Your task to perform on an android device: change the clock display to analog Image 0: 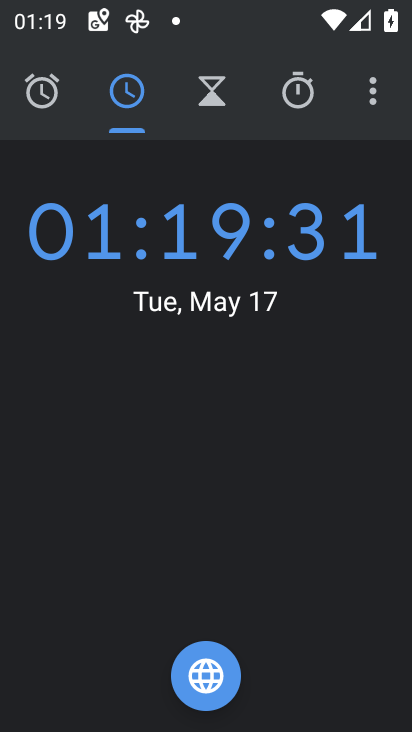
Step 0: press home button
Your task to perform on an android device: change the clock display to analog Image 1: 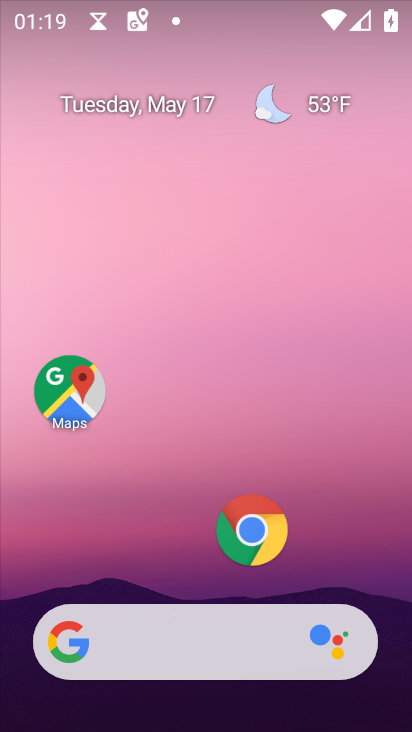
Step 1: drag from (160, 560) to (164, 2)
Your task to perform on an android device: change the clock display to analog Image 2: 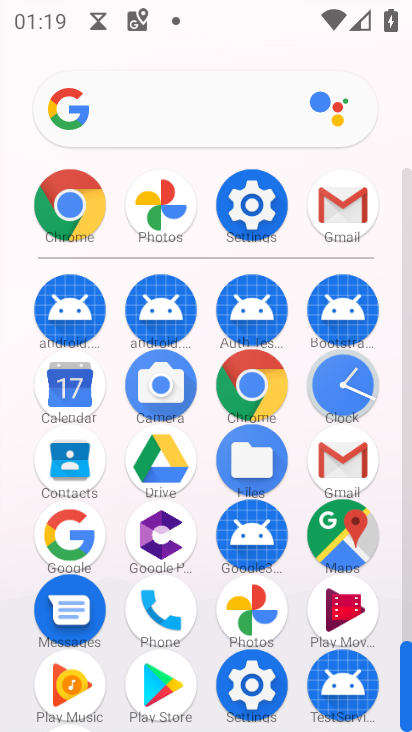
Step 2: click (337, 378)
Your task to perform on an android device: change the clock display to analog Image 3: 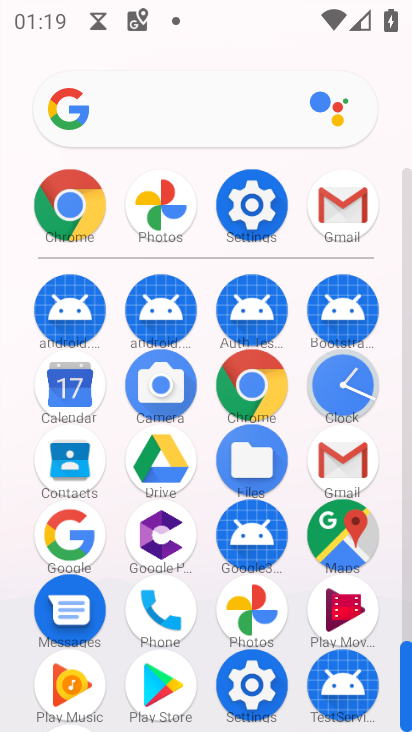
Step 3: click (337, 378)
Your task to perform on an android device: change the clock display to analog Image 4: 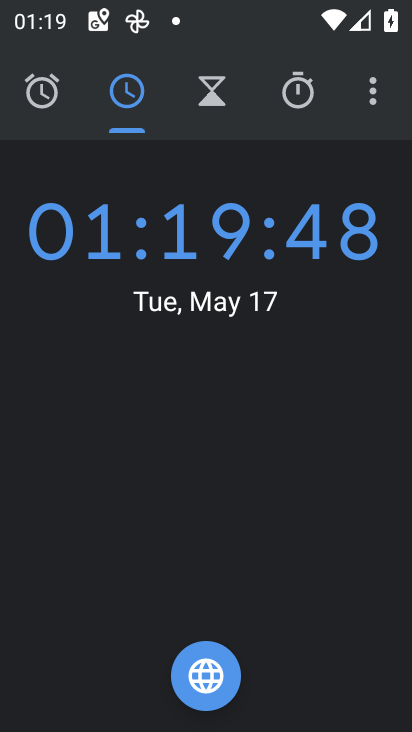
Step 4: click (365, 117)
Your task to perform on an android device: change the clock display to analog Image 5: 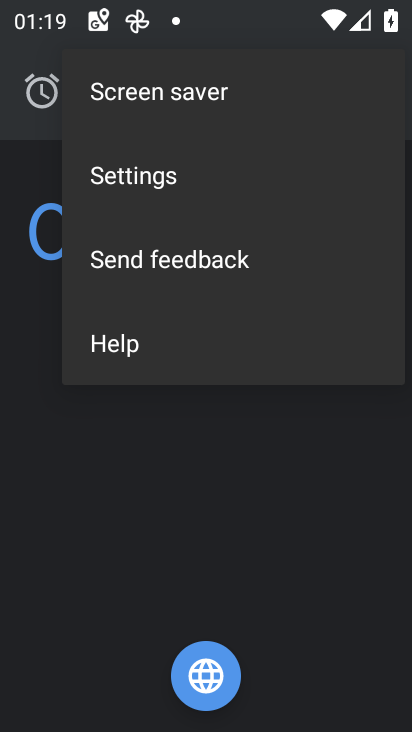
Step 5: click (146, 184)
Your task to perform on an android device: change the clock display to analog Image 6: 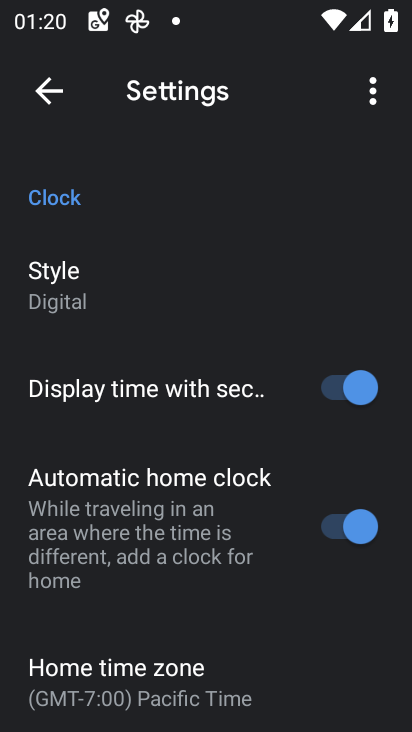
Step 6: click (109, 291)
Your task to perform on an android device: change the clock display to analog Image 7: 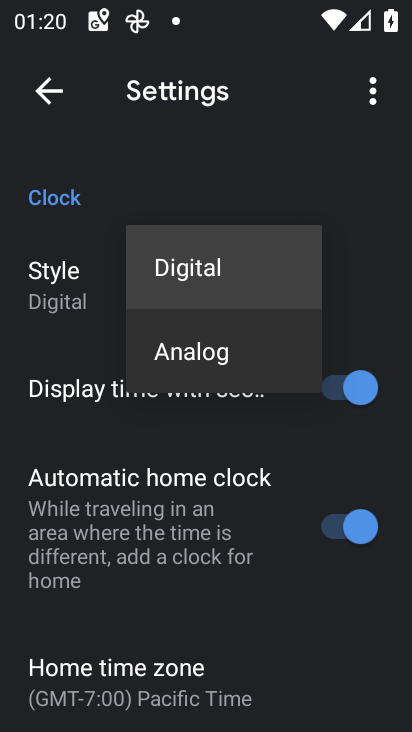
Step 7: click (186, 360)
Your task to perform on an android device: change the clock display to analog Image 8: 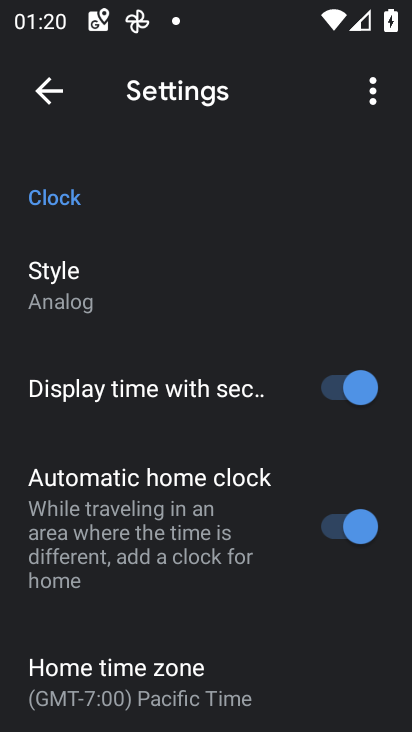
Step 8: task complete